Your task to perform on an android device: Open the phone app and click the voicemail tab. Image 0: 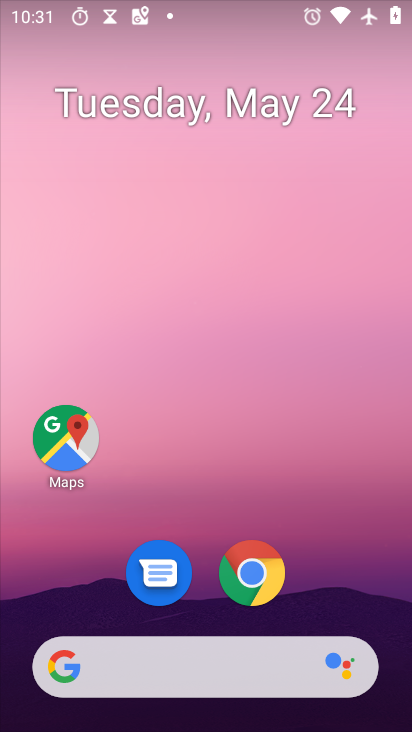
Step 0: drag from (374, 564) to (291, 0)
Your task to perform on an android device: Open the phone app and click the voicemail tab. Image 1: 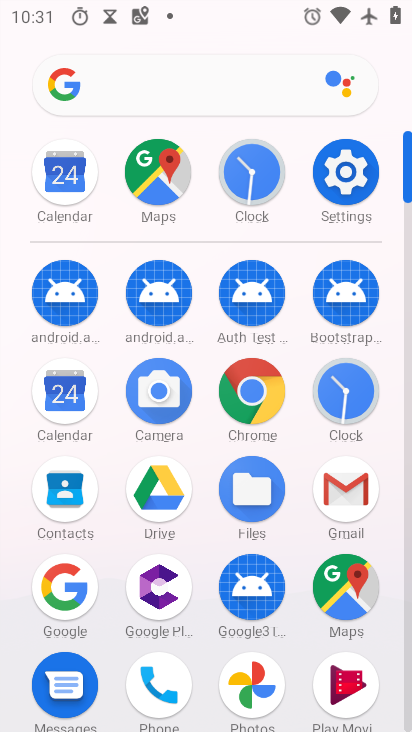
Step 1: drag from (378, 665) to (397, 174)
Your task to perform on an android device: Open the phone app and click the voicemail tab. Image 2: 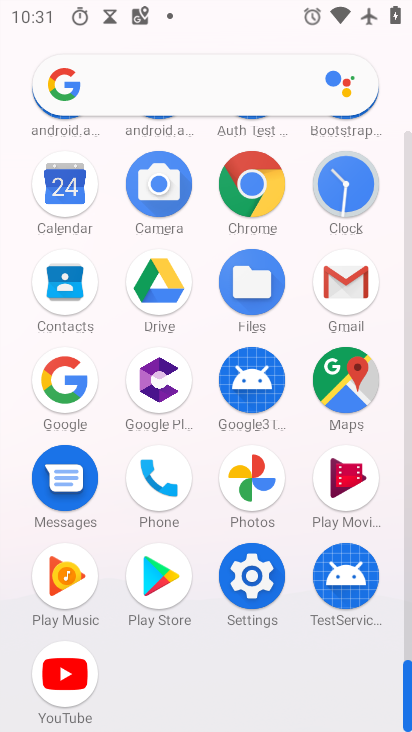
Step 2: click (337, 502)
Your task to perform on an android device: Open the phone app and click the voicemail tab. Image 3: 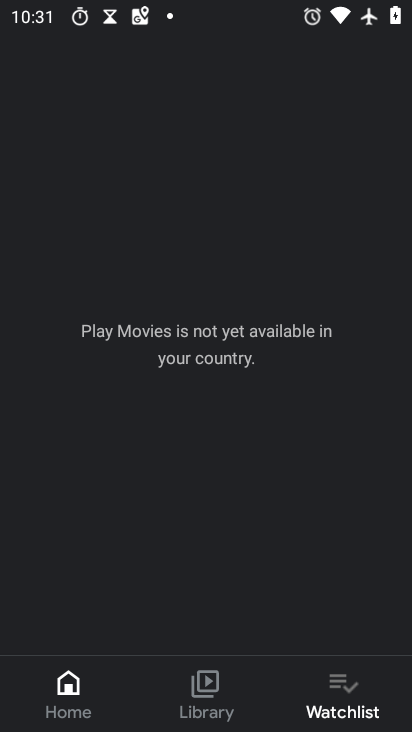
Step 3: task complete